Your task to perform on an android device: Play the last video I watched on Youtube Image 0: 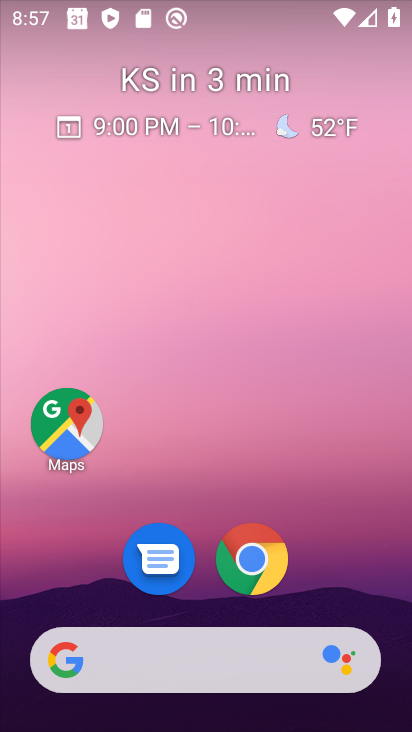
Step 0: drag from (339, 535) to (334, 0)
Your task to perform on an android device: Play the last video I watched on Youtube Image 1: 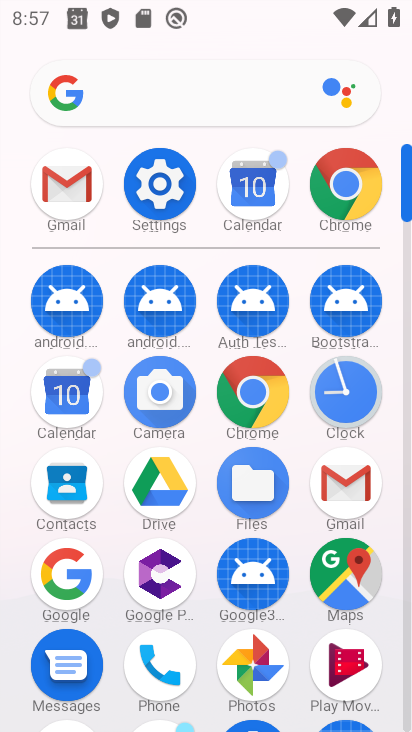
Step 1: drag from (17, 568) to (9, 230)
Your task to perform on an android device: Play the last video I watched on Youtube Image 2: 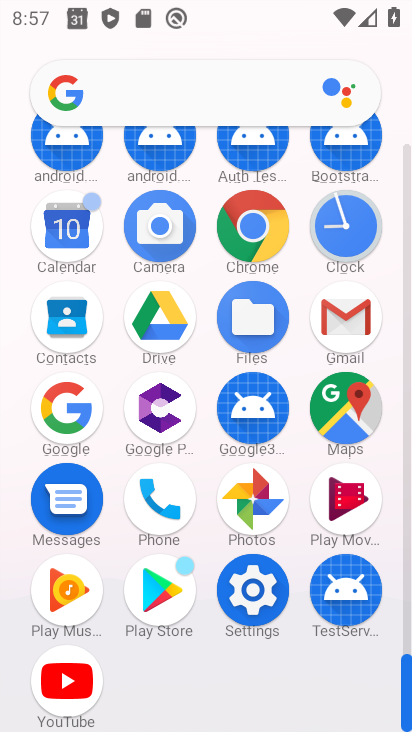
Step 2: click (60, 678)
Your task to perform on an android device: Play the last video I watched on Youtube Image 3: 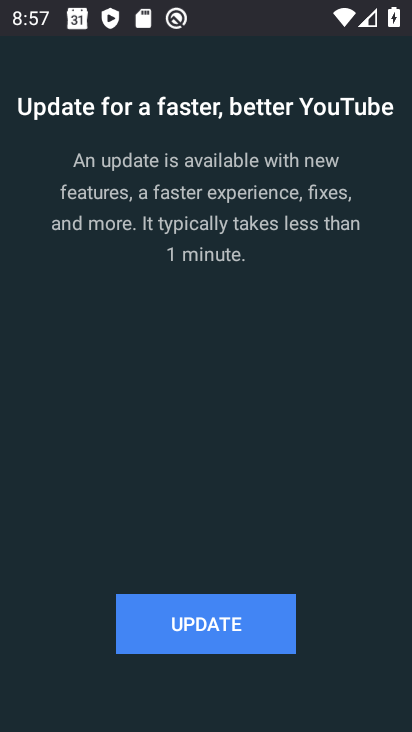
Step 3: click (248, 624)
Your task to perform on an android device: Play the last video I watched on Youtube Image 4: 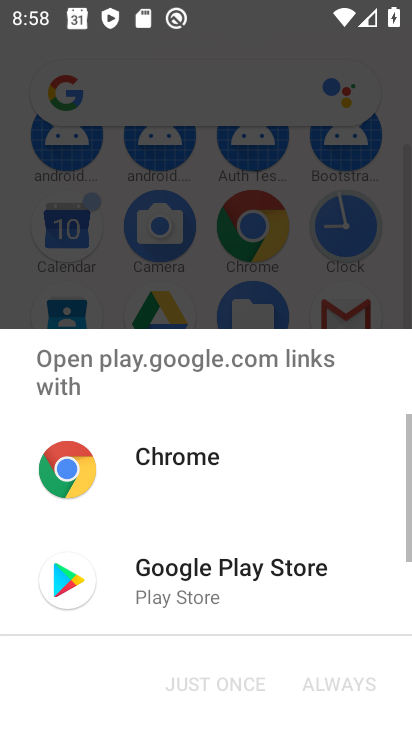
Step 4: click (213, 580)
Your task to perform on an android device: Play the last video I watched on Youtube Image 5: 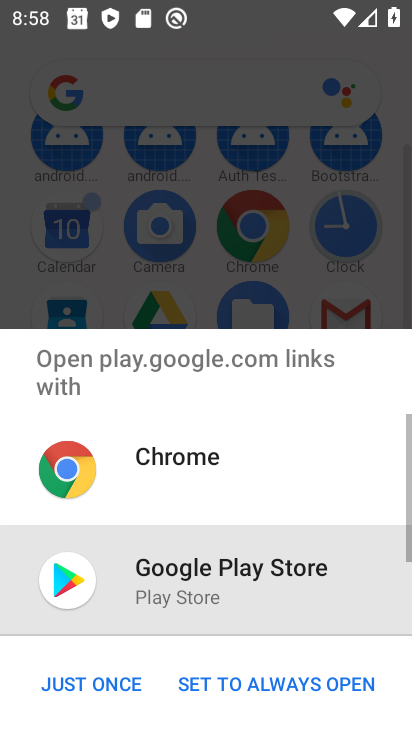
Step 5: click (104, 687)
Your task to perform on an android device: Play the last video I watched on Youtube Image 6: 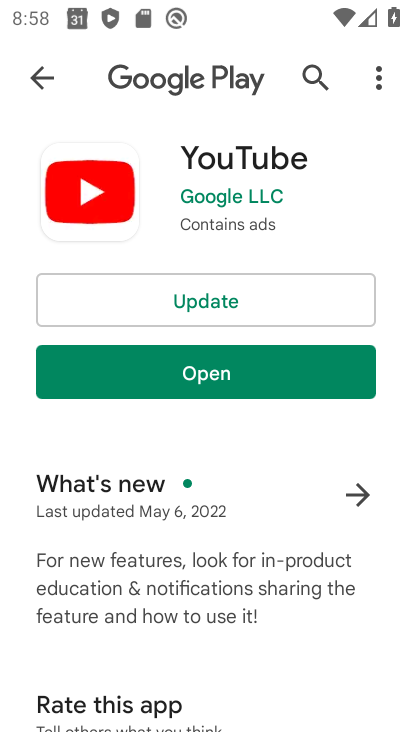
Step 6: click (257, 294)
Your task to perform on an android device: Play the last video I watched on Youtube Image 7: 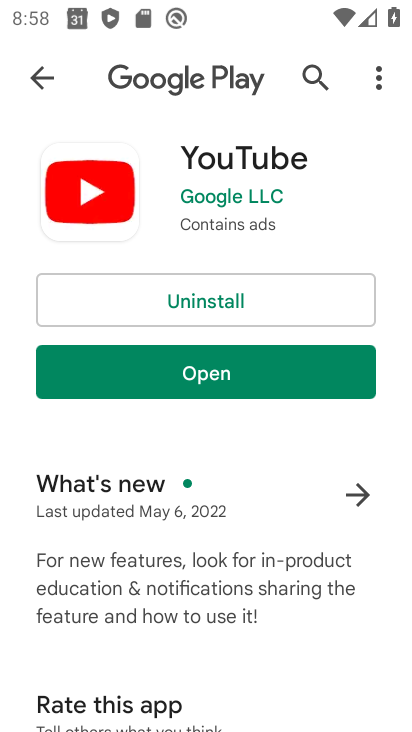
Step 7: click (285, 362)
Your task to perform on an android device: Play the last video I watched on Youtube Image 8: 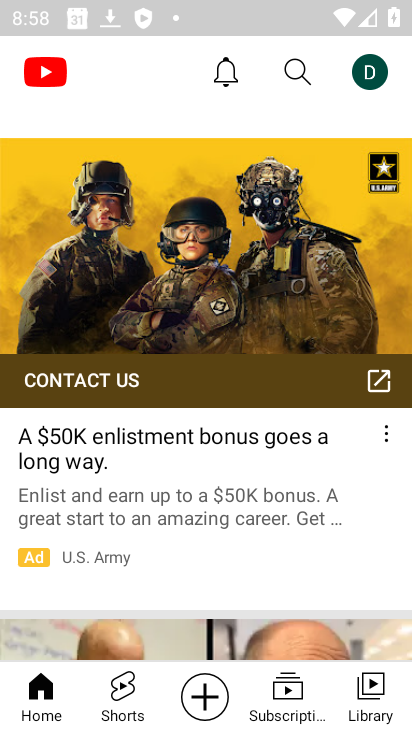
Step 8: click (377, 688)
Your task to perform on an android device: Play the last video I watched on Youtube Image 9: 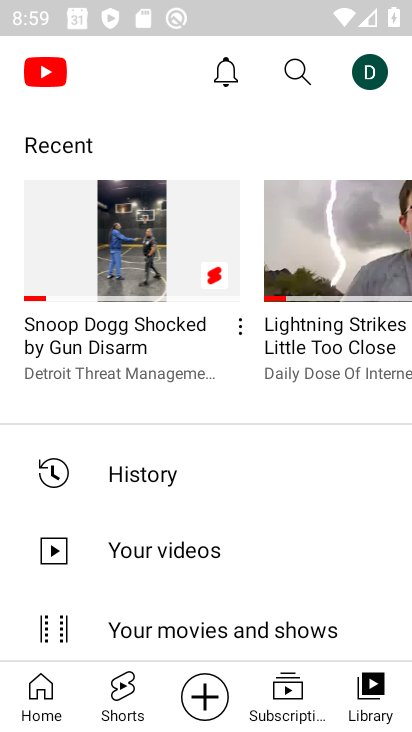
Step 9: click (146, 240)
Your task to perform on an android device: Play the last video I watched on Youtube Image 10: 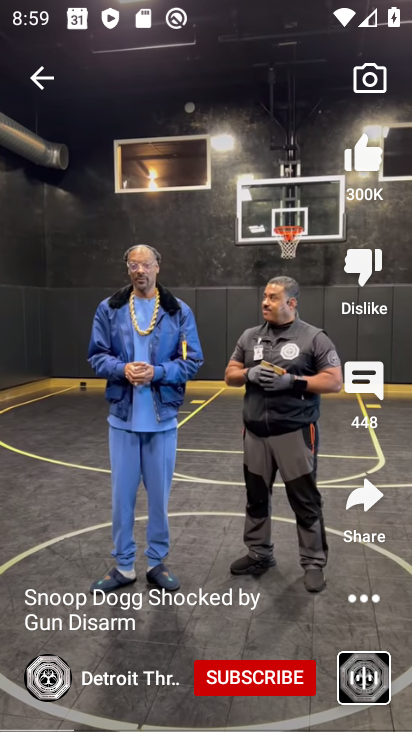
Step 10: task complete